Your task to perform on an android device: see tabs open on other devices in the chrome app Image 0: 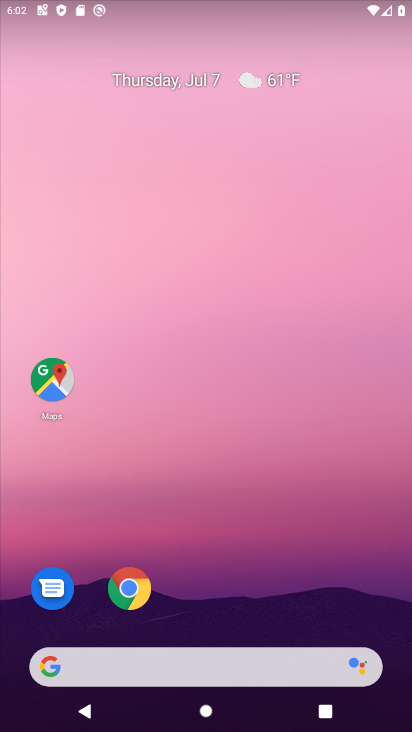
Step 0: click (131, 570)
Your task to perform on an android device: see tabs open on other devices in the chrome app Image 1: 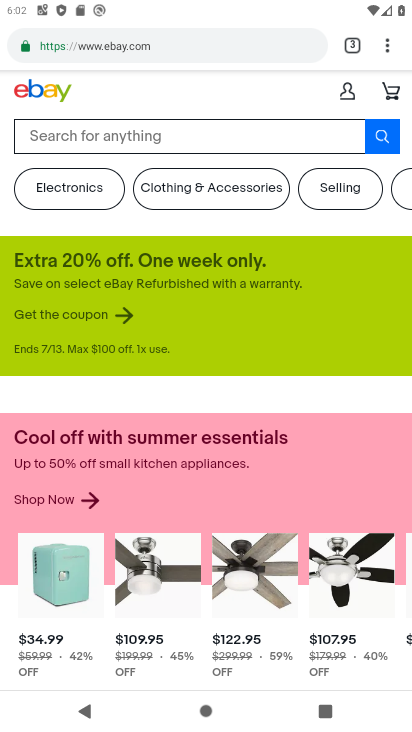
Step 1: click (348, 50)
Your task to perform on an android device: see tabs open on other devices in the chrome app Image 2: 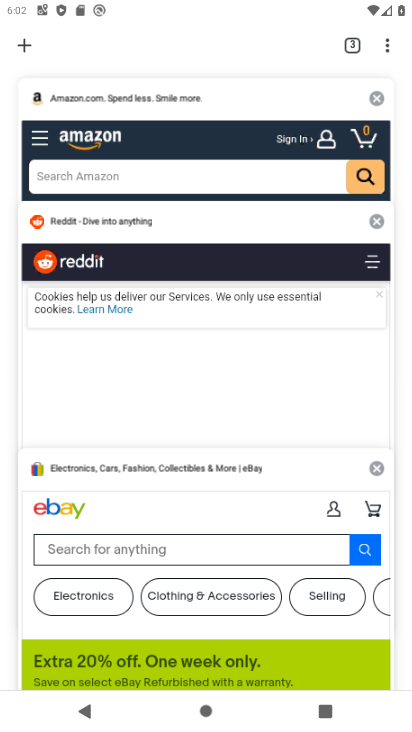
Step 2: click (393, 48)
Your task to perform on an android device: see tabs open on other devices in the chrome app Image 3: 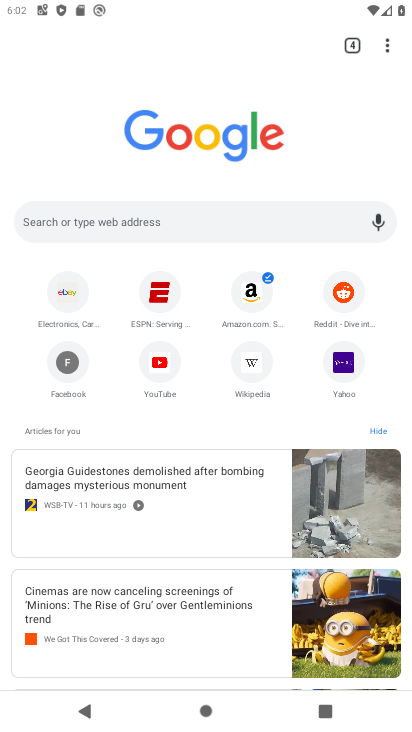
Step 3: task complete